Your task to perform on an android device: Clear the cart on walmart. Image 0: 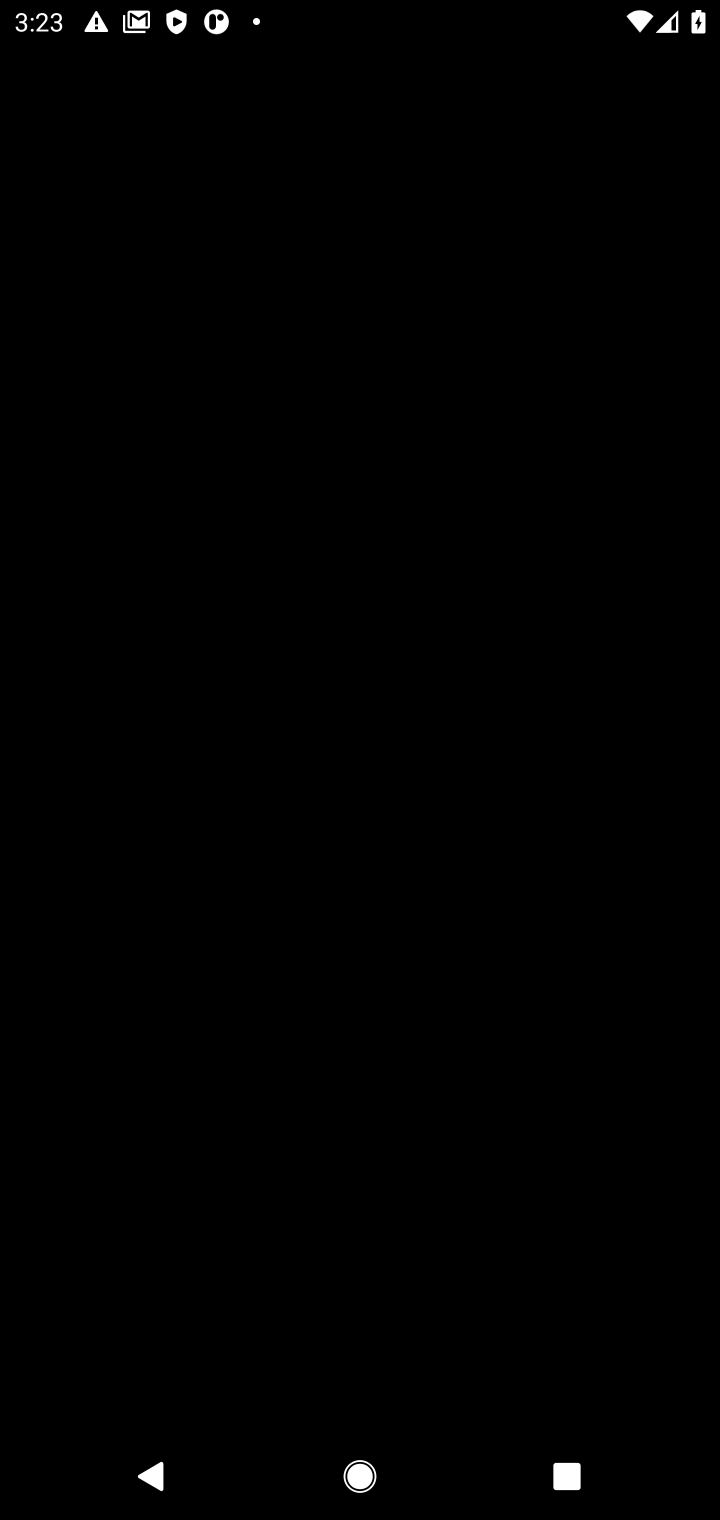
Step 0: press home button
Your task to perform on an android device: Clear the cart on walmart. Image 1: 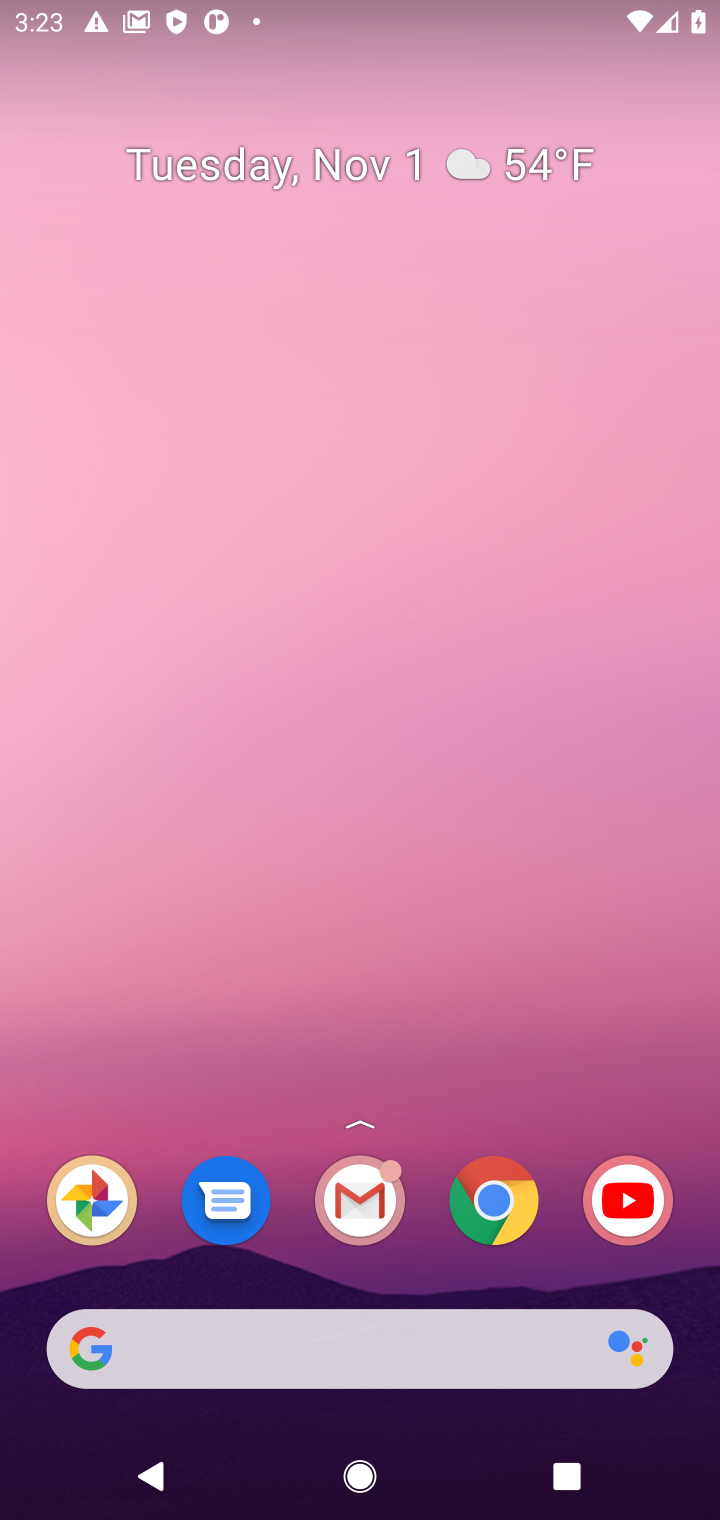
Step 1: click (92, 1347)
Your task to perform on an android device: Clear the cart on walmart. Image 2: 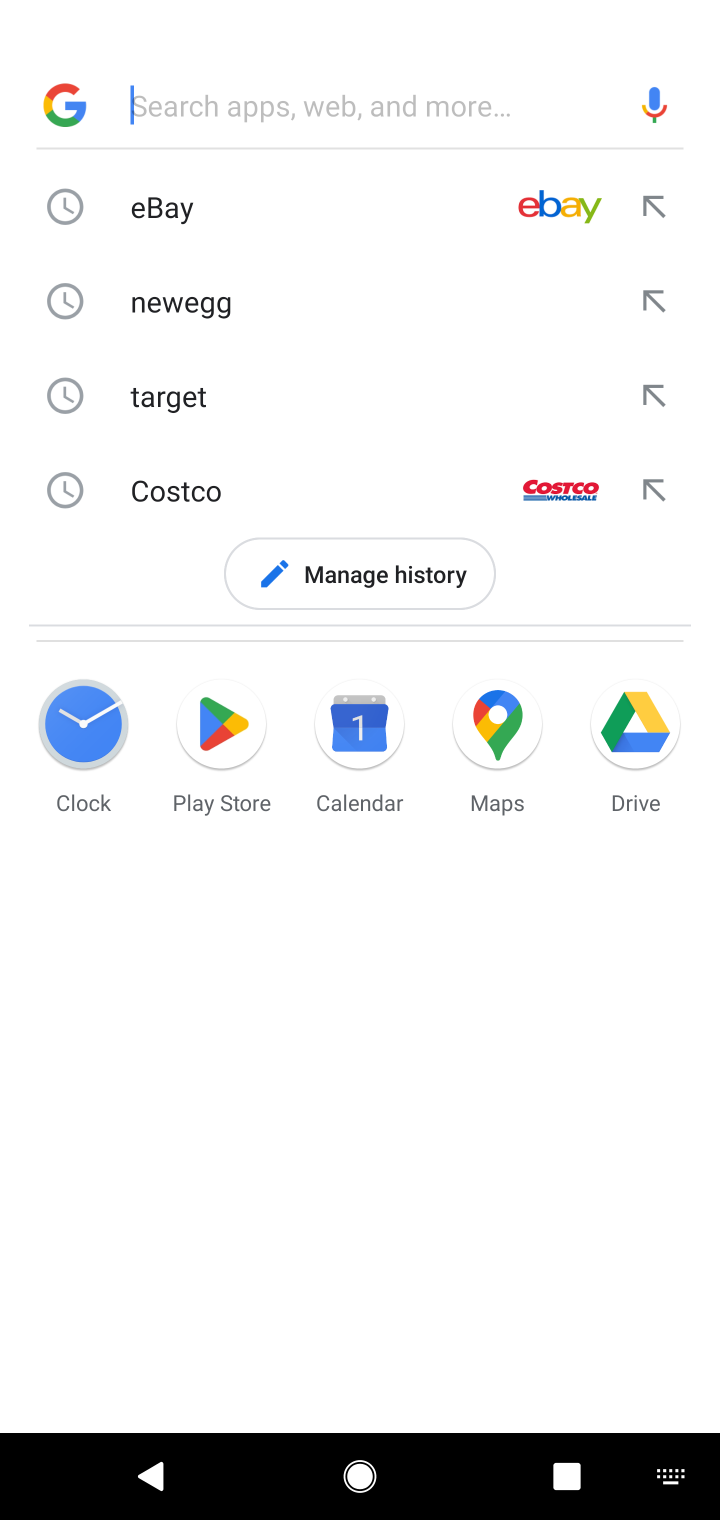
Step 2: click (406, 109)
Your task to perform on an android device: Clear the cart on walmart. Image 3: 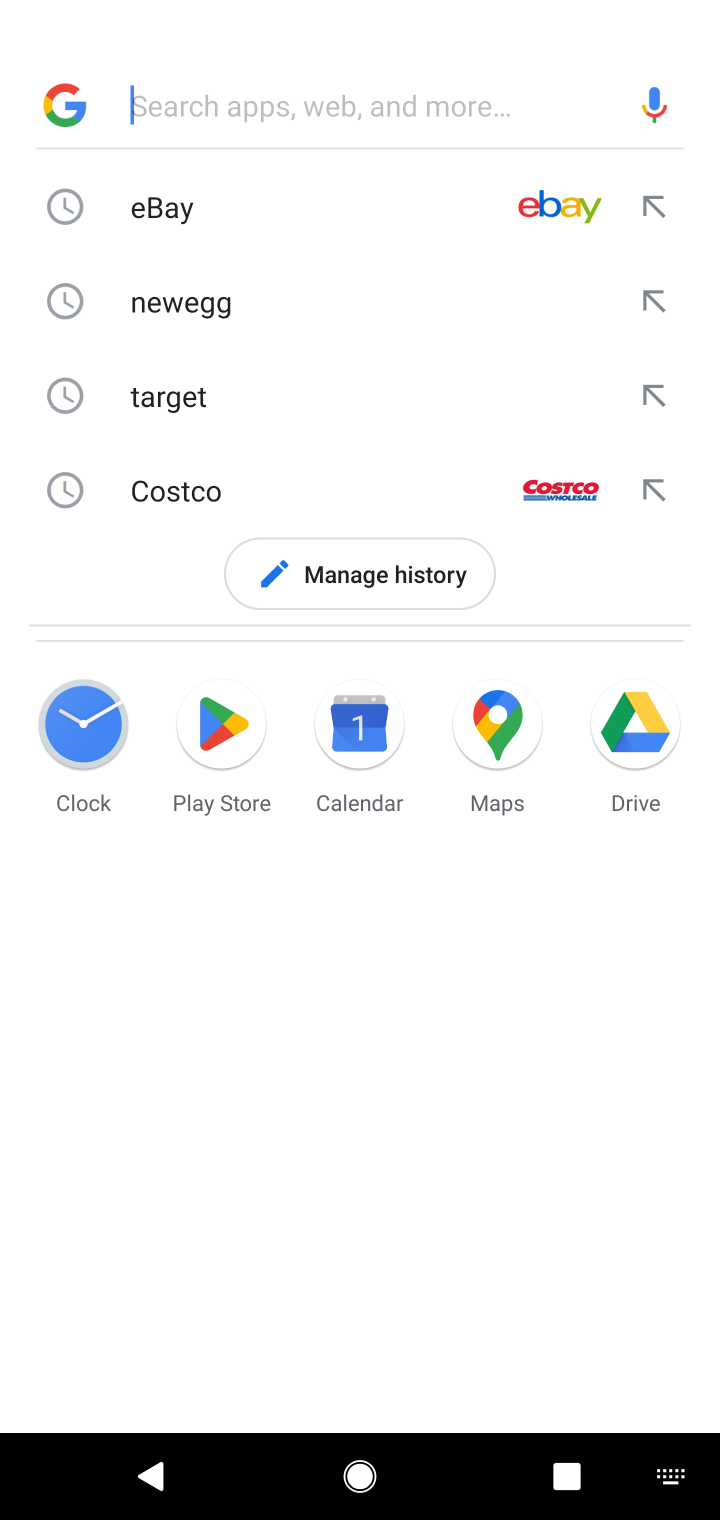
Step 3: type "walmart"
Your task to perform on an android device: Clear the cart on walmart. Image 4: 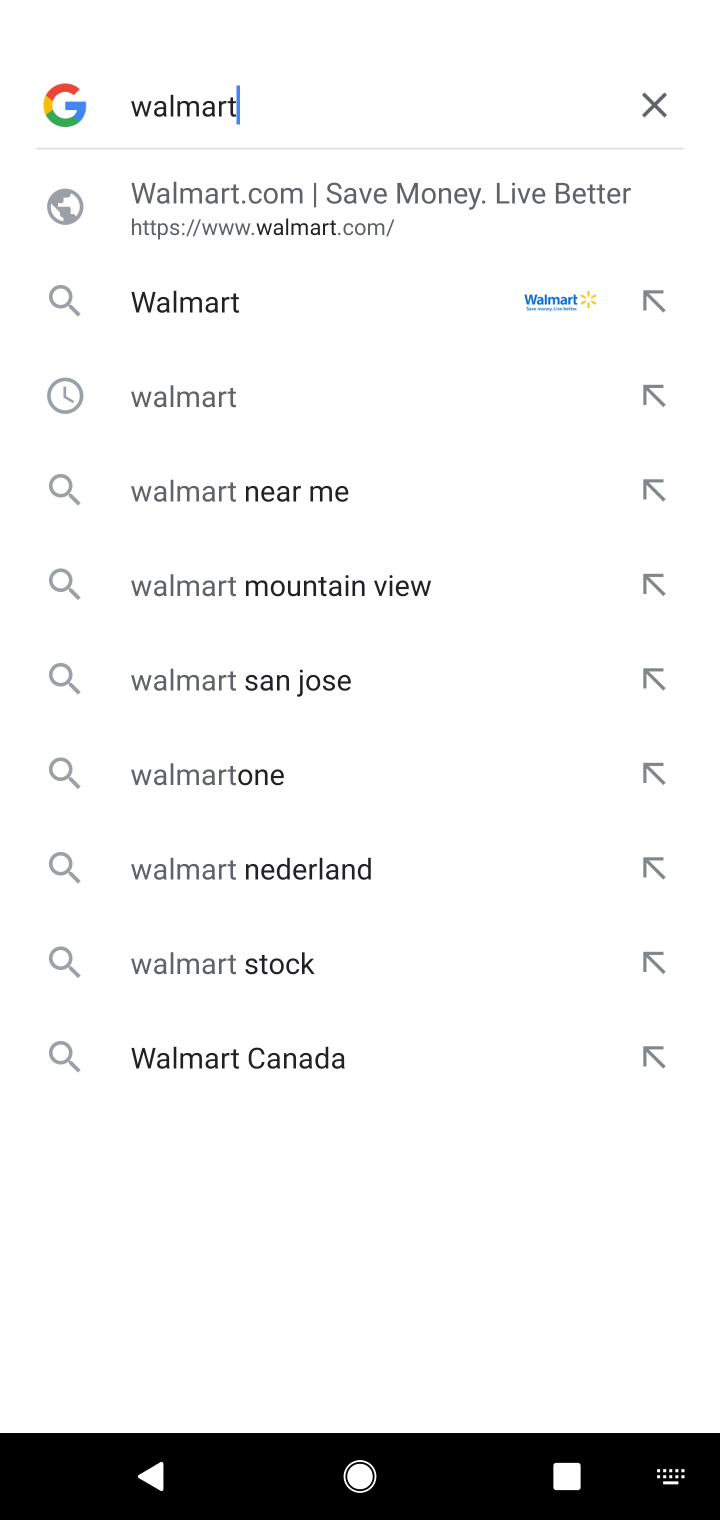
Step 4: click (197, 309)
Your task to perform on an android device: Clear the cart on walmart. Image 5: 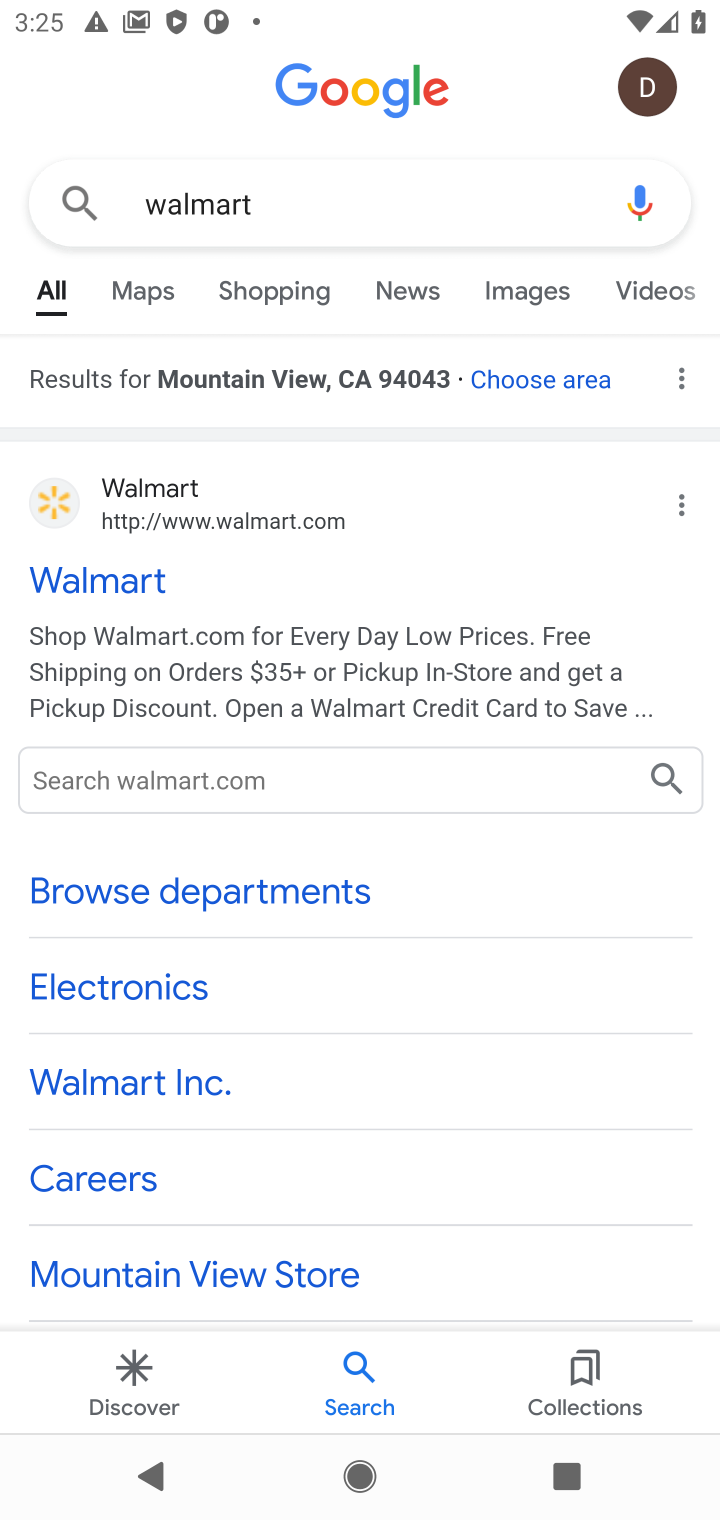
Step 5: click (112, 583)
Your task to perform on an android device: Clear the cart on walmart. Image 6: 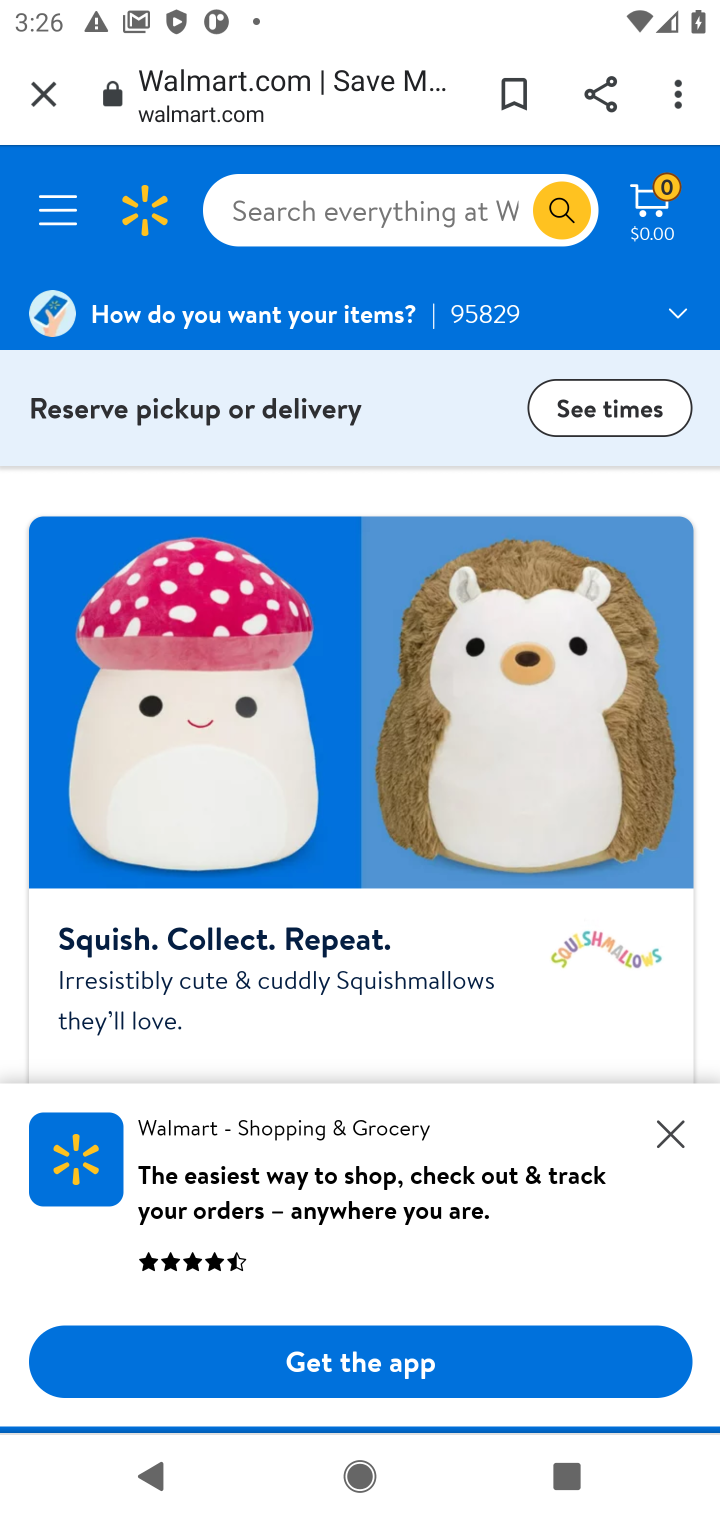
Step 6: task complete